Your task to perform on an android device: move a message to another label in the gmail app Image 0: 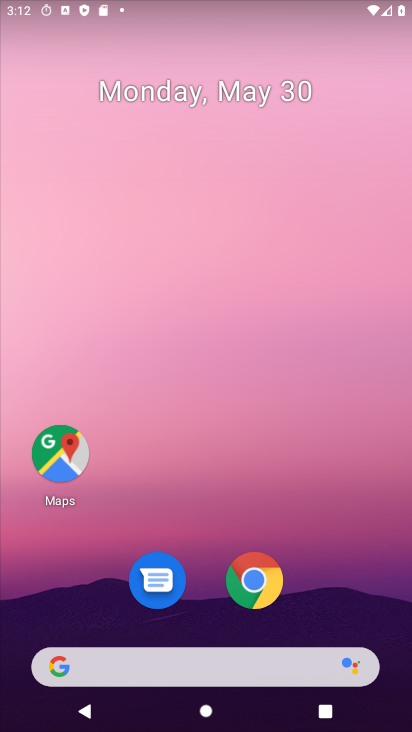
Step 0: drag from (184, 609) to (207, 114)
Your task to perform on an android device: move a message to another label in the gmail app Image 1: 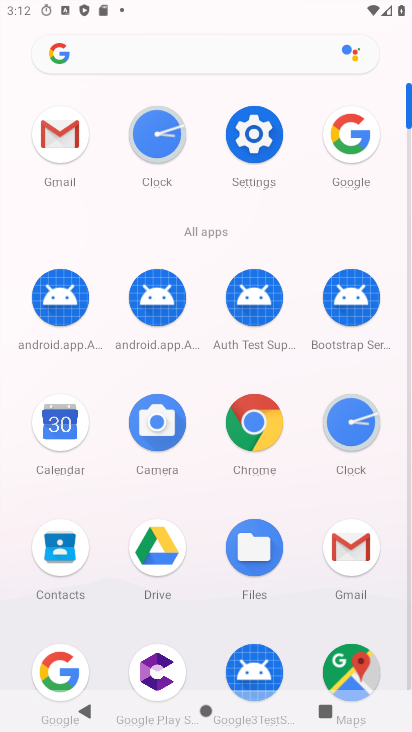
Step 1: click (347, 548)
Your task to perform on an android device: move a message to another label in the gmail app Image 2: 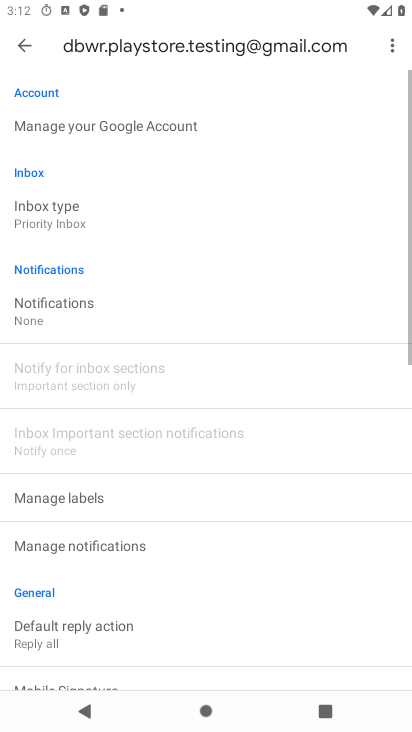
Step 2: drag from (127, 180) to (185, 495)
Your task to perform on an android device: move a message to another label in the gmail app Image 3: 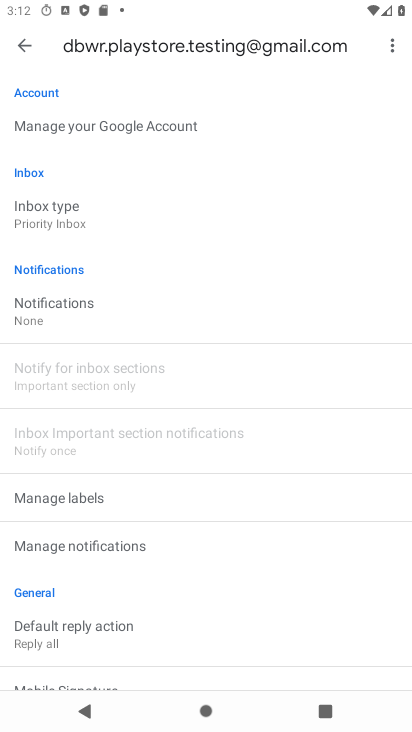
Step 3: press back button
Your task to perform on an android device: move a message to another label in the gmail app Image 4: 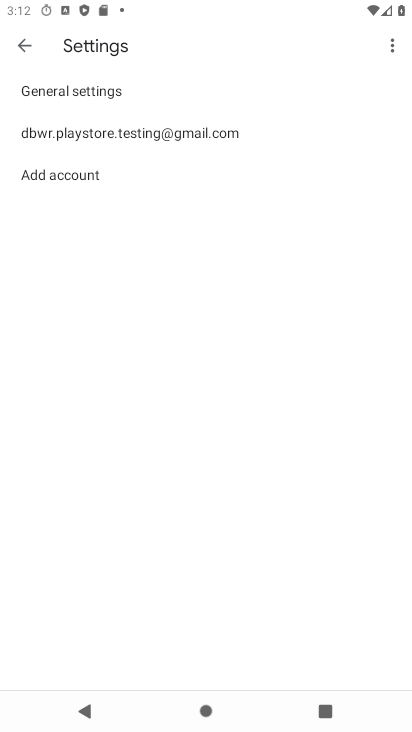
Step 4: press back button
Your task to perform on an android device: move a message to another label in the gmail app Image 5: 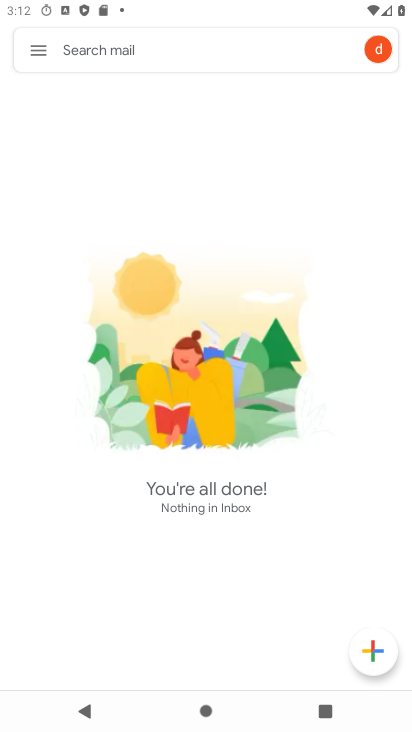
Step 5: click (44, 47)
Your task to perform on an android device: move a message to another label in the gmail app Image 6: 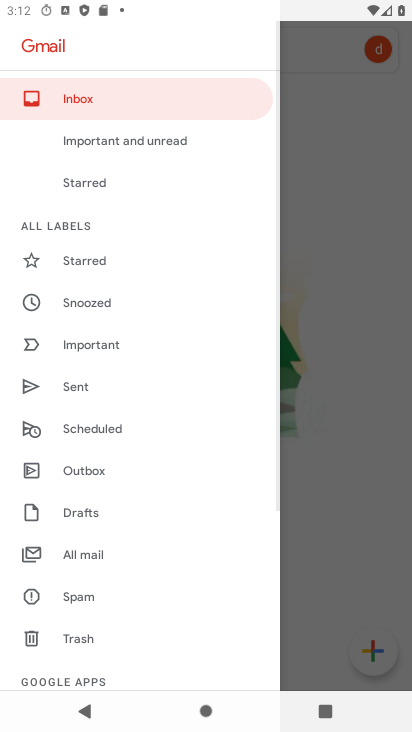
Step 6: click (74, 566)
Your task to perform on an android device: move a message to another label in the gmail app Image 7: 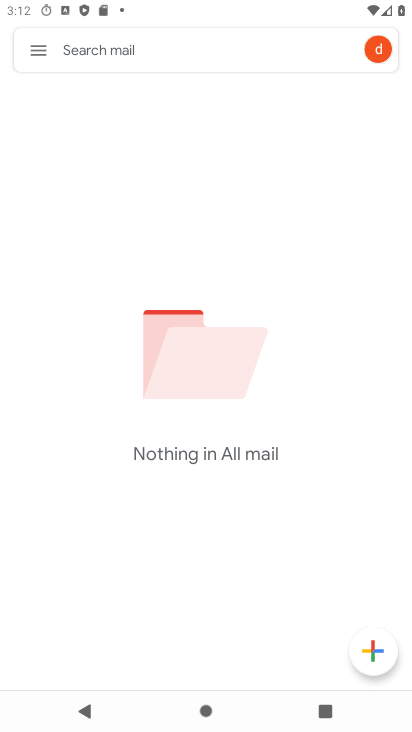
Step 7: task complete